Your task to perform on an android device: all mails in gmail Image 0: 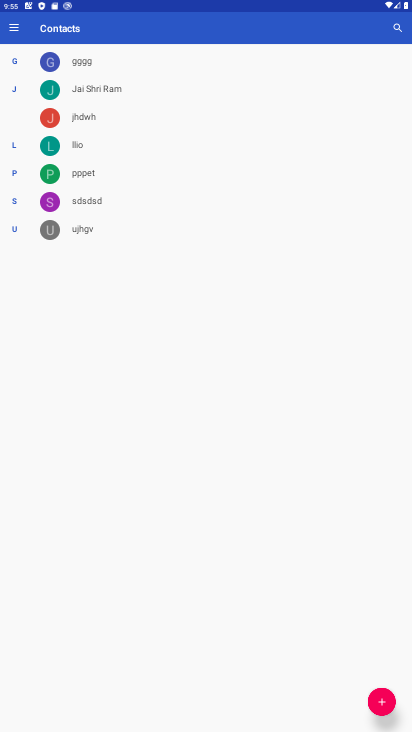
Step 0: press home button
Your task to perform on an android device: all mails in gmail Image 1: 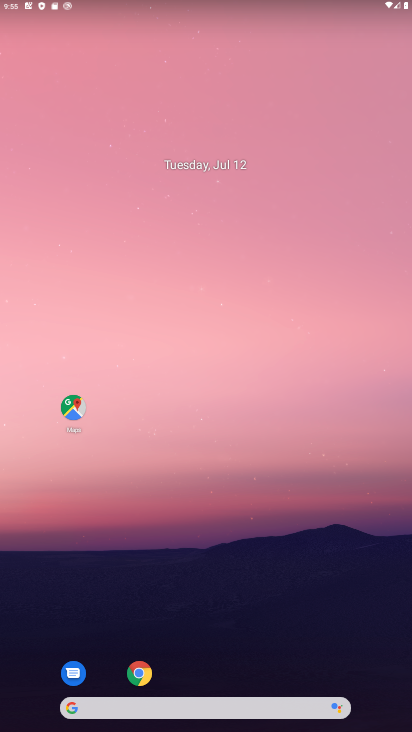
Step 1: drag from (195, 25) to (80, 5)
Your task to perform on an android device: all mails in gmail Image 2: 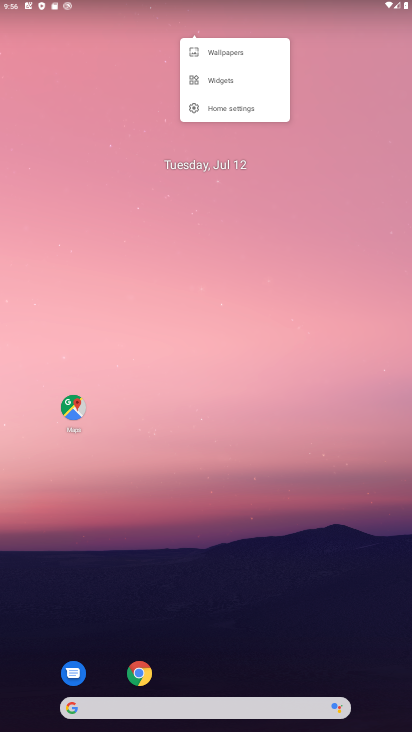
Step 2: drag from (194, 378) to (198, 4)
Your task to perform on an android device: all mails in gmail Image 3: 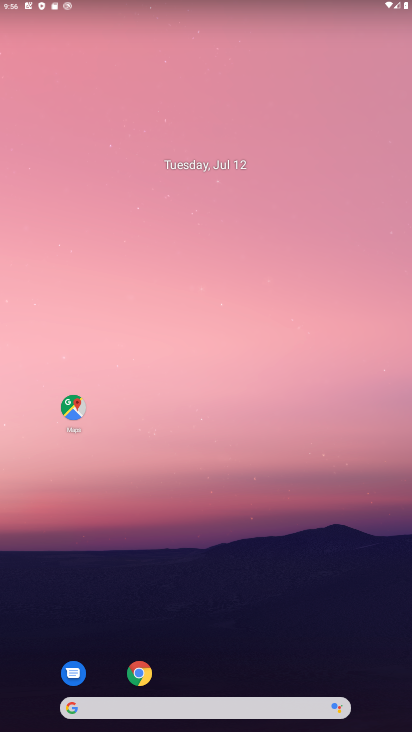
Step 3: drag from (201, 141) to (201, 95)
Your task to perform on an android device: all mails in gmail Image 4: 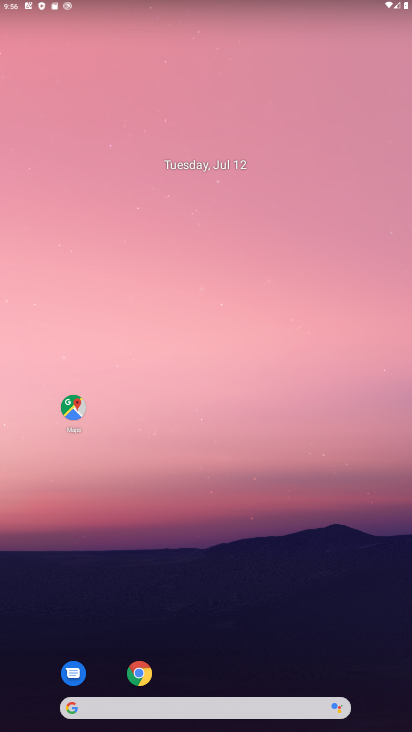
Step 4: drag from (201, 494) to (232, 90)
Your task to perform on an android device: all mails in gmail Image 5: 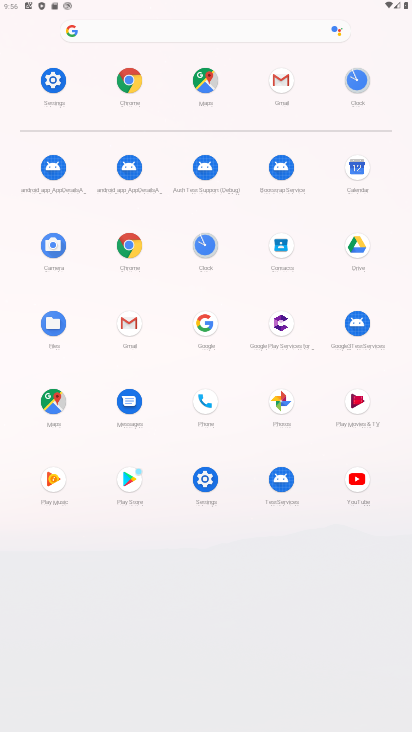
Step 5: click (286, 80)
Your task to perform on an android device: all mails in gmail Image 6: 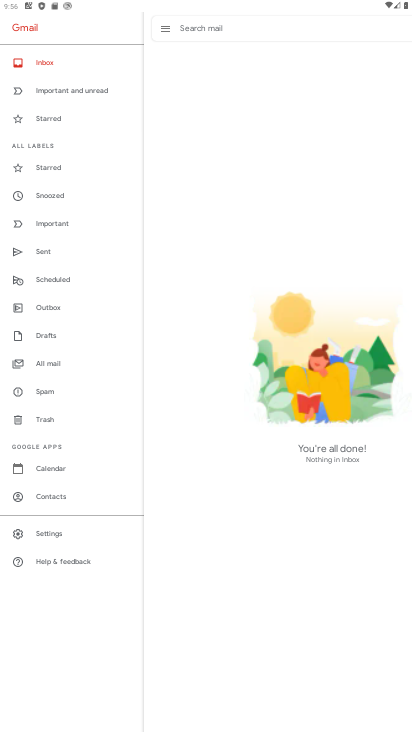
Step 6: click (42, 366)
Your task to perform on an android device: all mails in gmail Image 7: 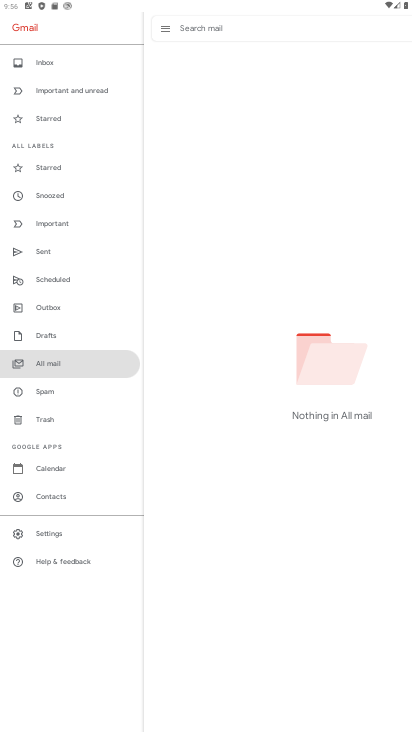
Step 7: task complete